Your task to perform on an android device: Open settings on Google Maps Image 0: 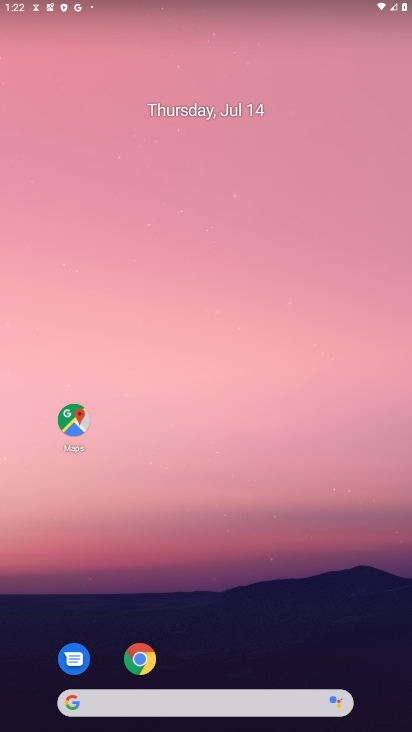
Step 0: click (79, 430)
Your task to perform on an android device: Open settings on Google Maps Image 1: 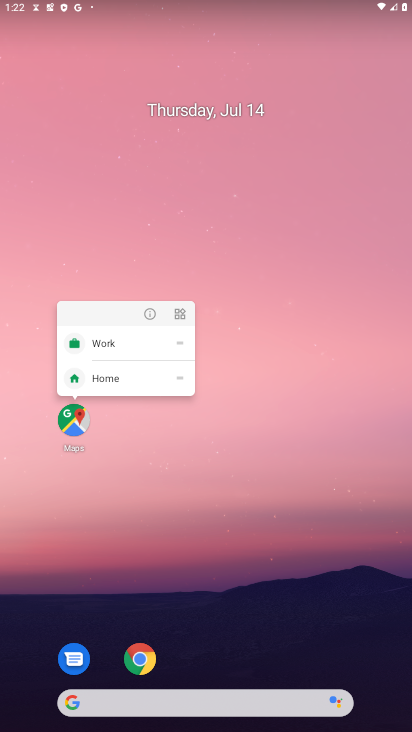
Step 1: click (79, 430)
Your task to perform on an android device: Open settings on Google Maps Image 2: 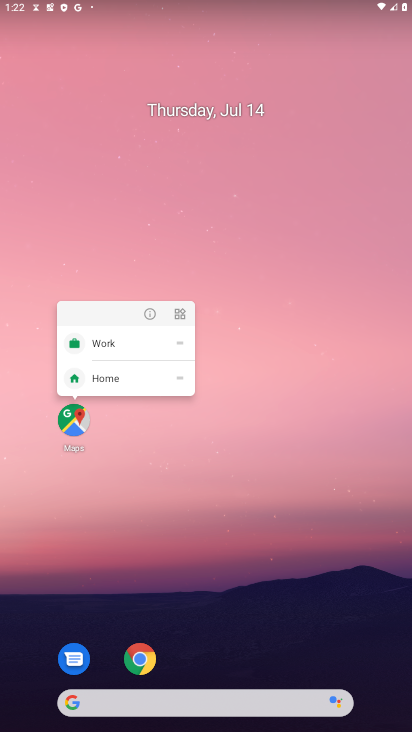
Step 2: click (79, 427)
Your task to perform on an android device: Open settings on Google Maps Image 3: 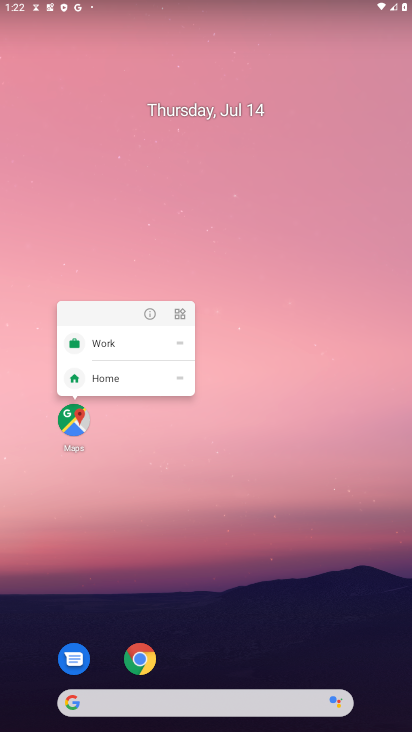
Step 3: task complete